Your task to perform on an android device: Open eBay Image 0: 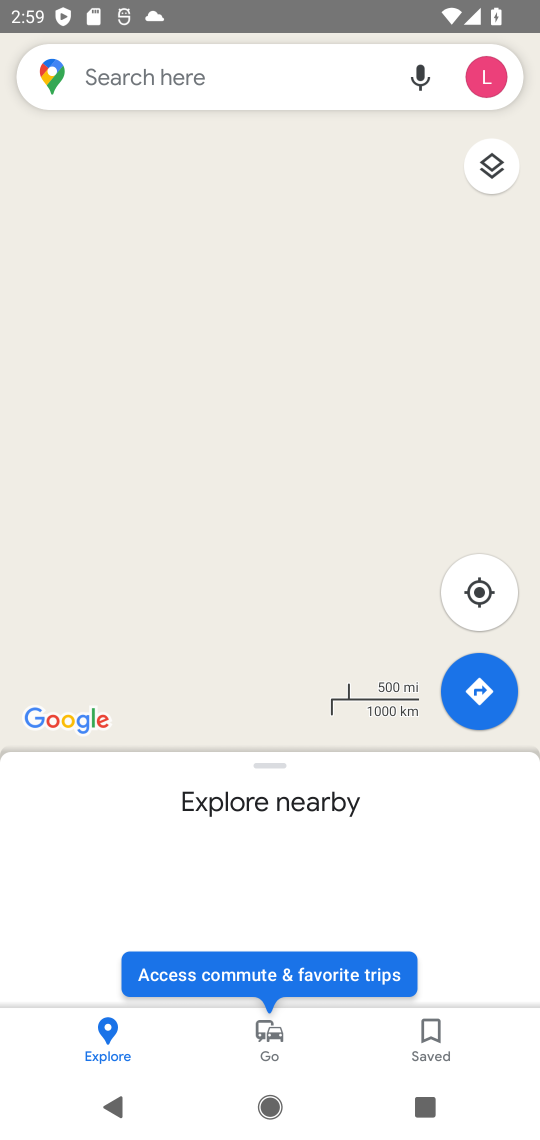
Step 0: press home button
Your task to perform on an android device: Open eBay Image 1: 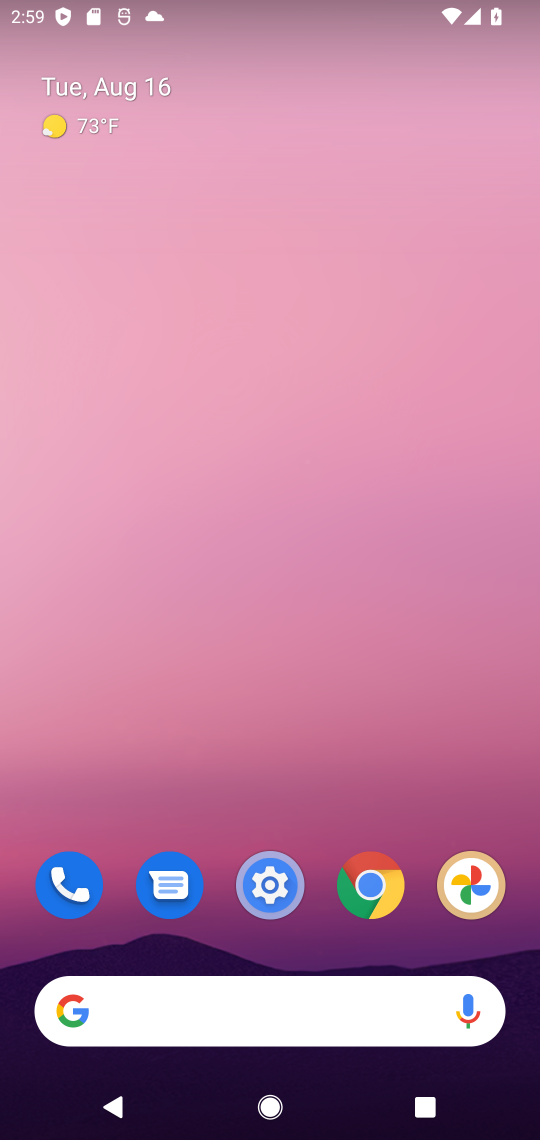
Step 1: drag from (187, 917) to (117, 410)
Your task to perform on an android device: Open eBay Image 2: 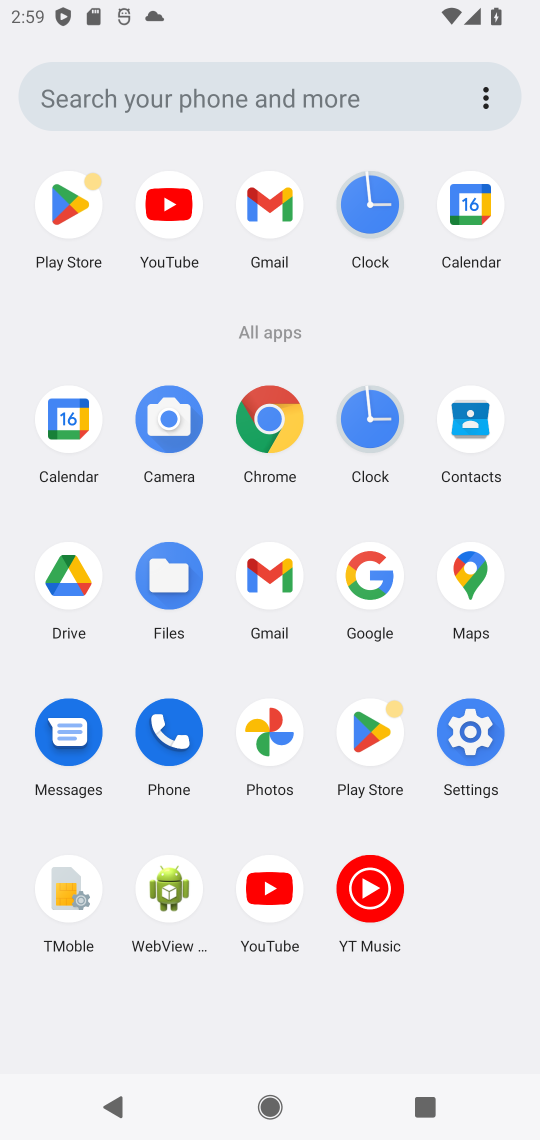
Step 2: click (271, 403)
Your task to perform on an android device: Open eBay Image 3: 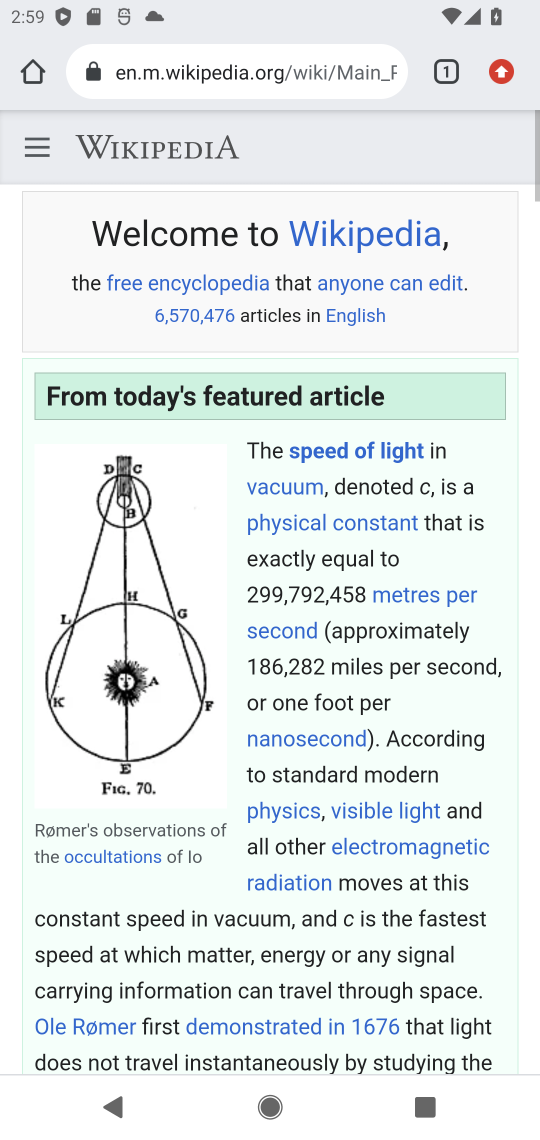
Step 3: click (497, 79)
Your task to perform on an android device: Open eBay Image 4: 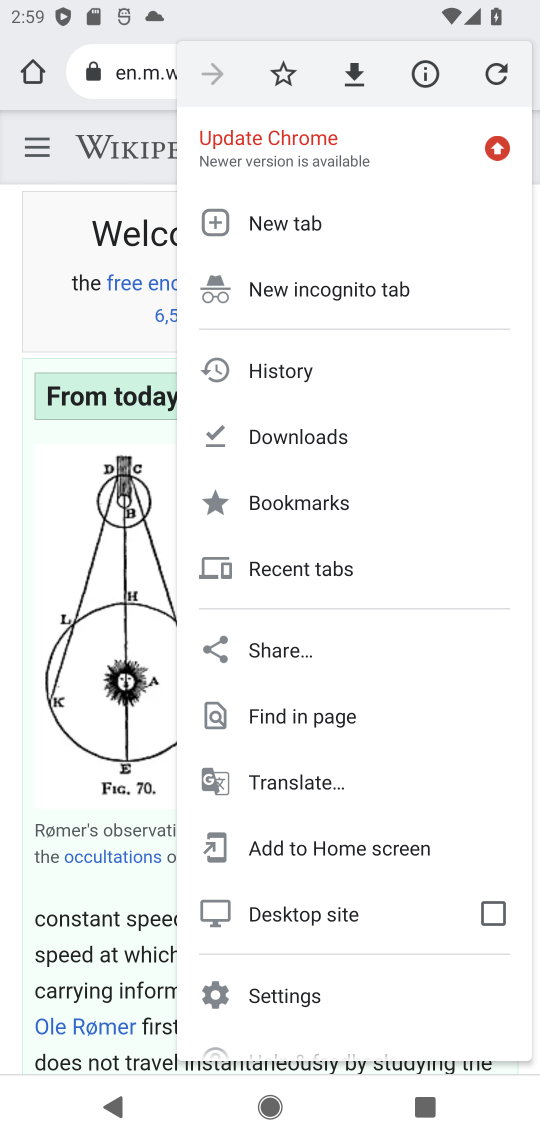
Step 4: click (285, 223)
Your task to perform on an android device: Open eBay Image 5: 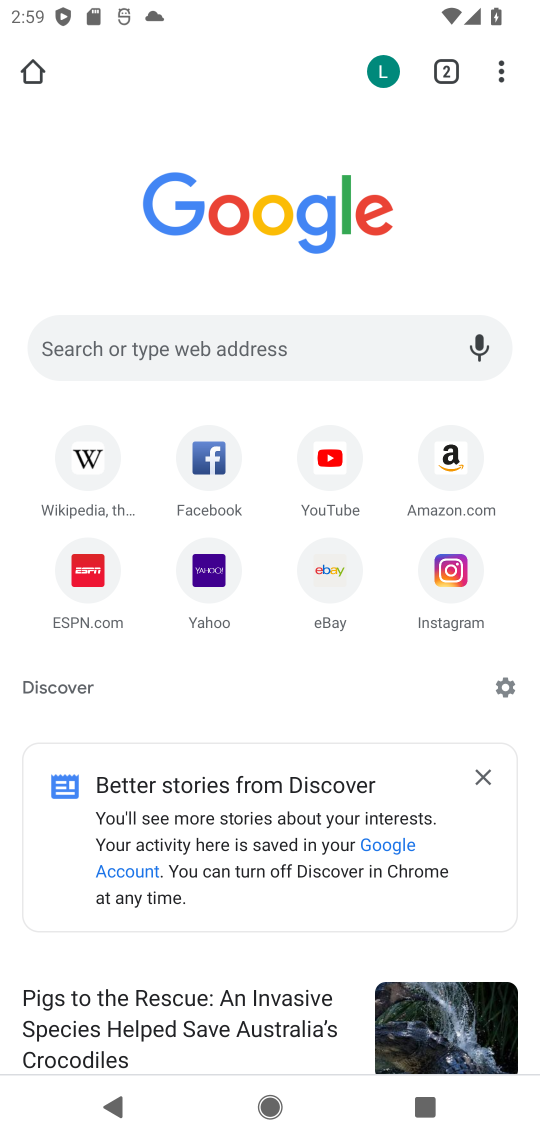
Step 5: click (329, 568)
Your task to perform on an android device: Open eBay Image 6: 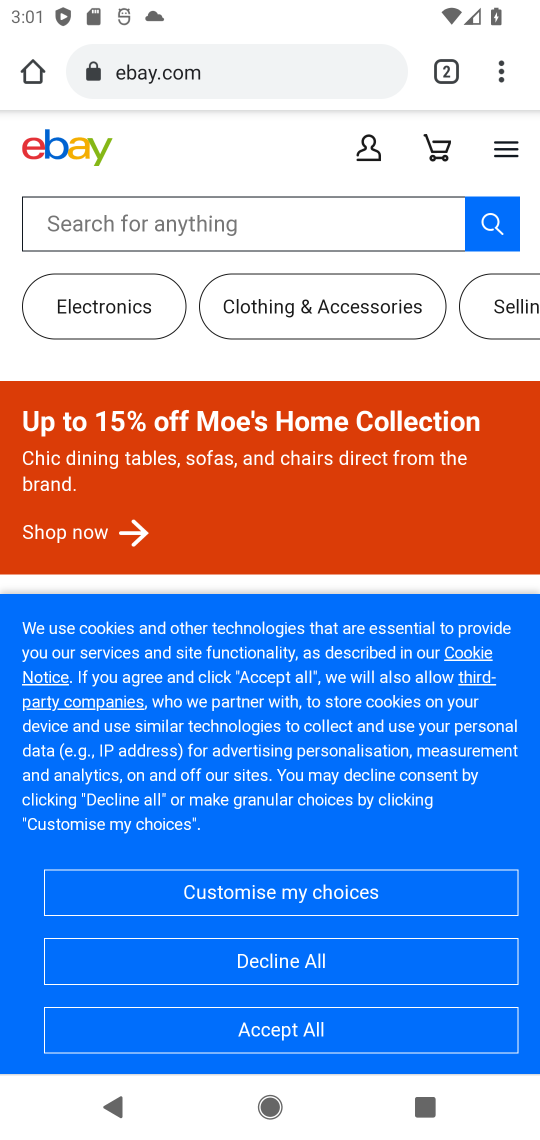
Step 6: task complete